Your task to perform on an android device: Open the calendar and show me this week's events? Image 0: 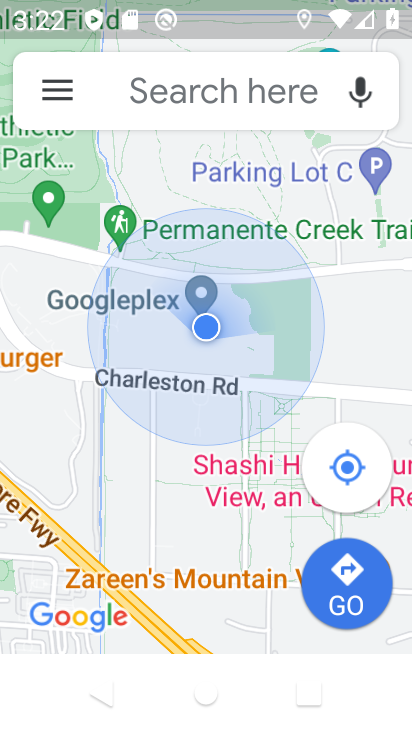
Step 0: press home button
Your task to perform on an android device: Open the calendar and show me this week's events? Image 1: 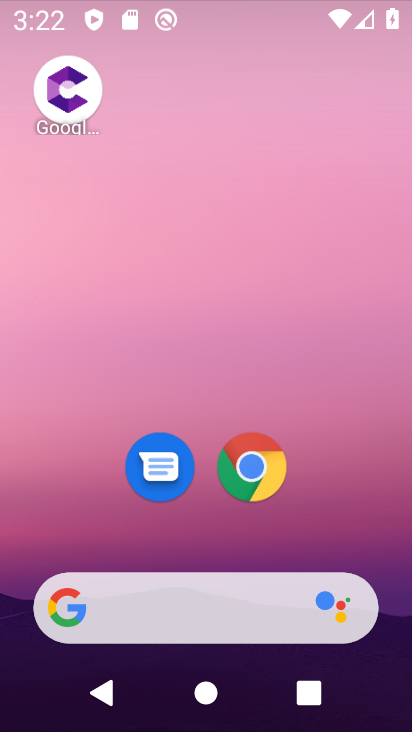
Step 1: drag from (212, 535) to (216, 86)
Your task to perform on an android device: Open the calendar and show me this week's events? Image 2: 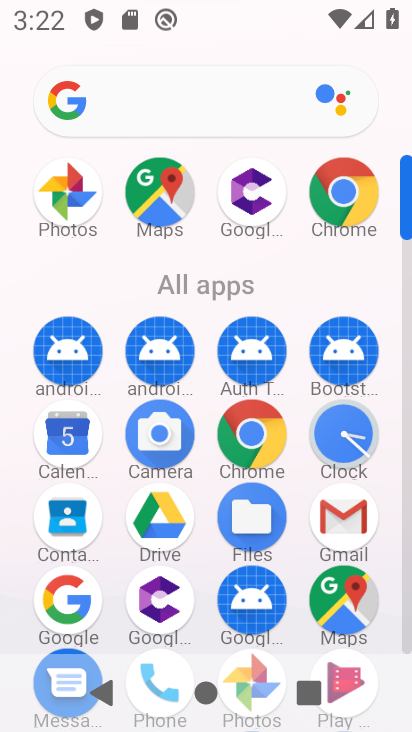
Step 2: click (59, 430)
Your task to perform on an android device: Open the calendar and show me this week's events? Image 3: 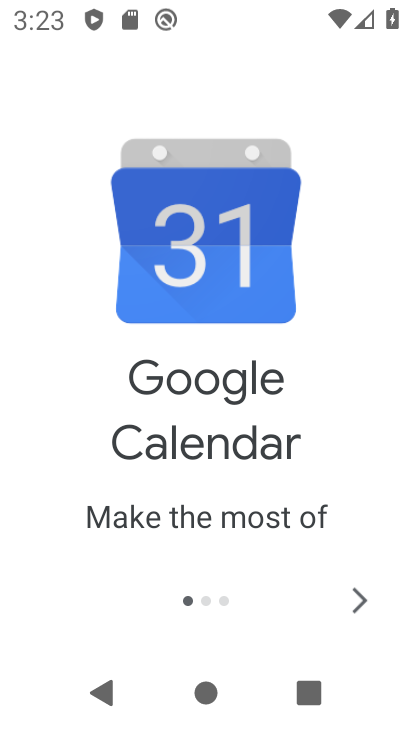
Step 3: click (363, 603)
Your task to perform on an android device: Open the calendar and show me this week's events? Image 4: 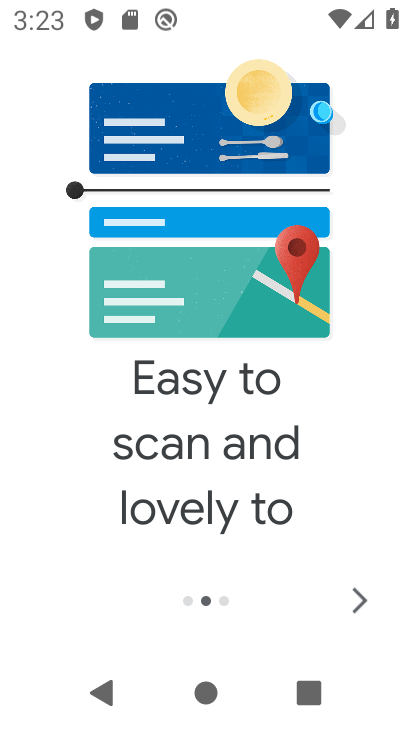
Step 4: click (361, 602)
Your task to perform on an android device: Open the calendar and show me this week's events? Image 5: 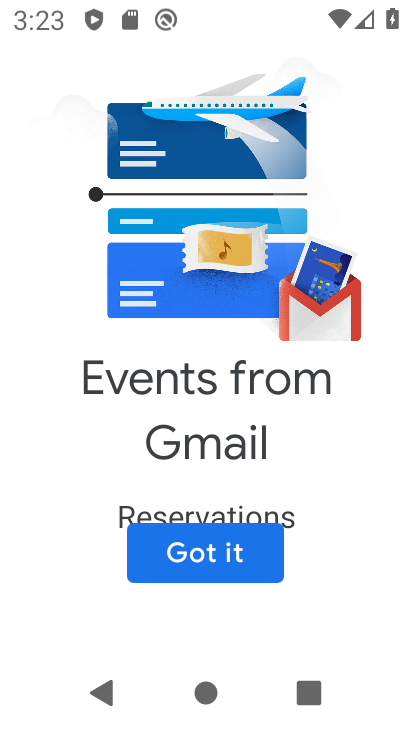
Step 5: click (361, 602)
Your task to perform on an android device: Open the calendar and show me this week's events? Image 6: 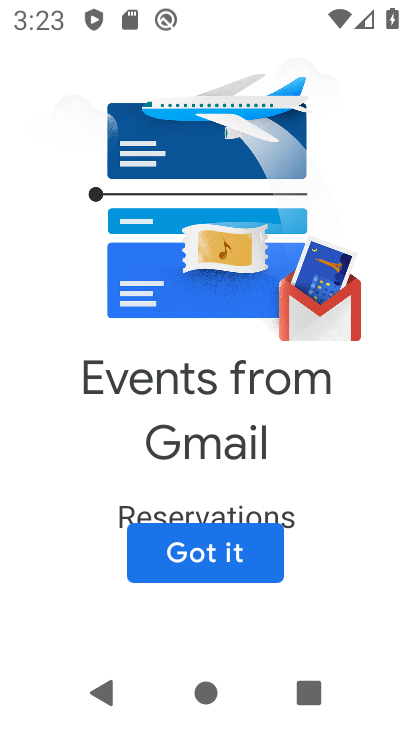
Step 6: click (361, 602)
Your task to perform on an android device: Open the calendar and show me this week's events? Image 7: 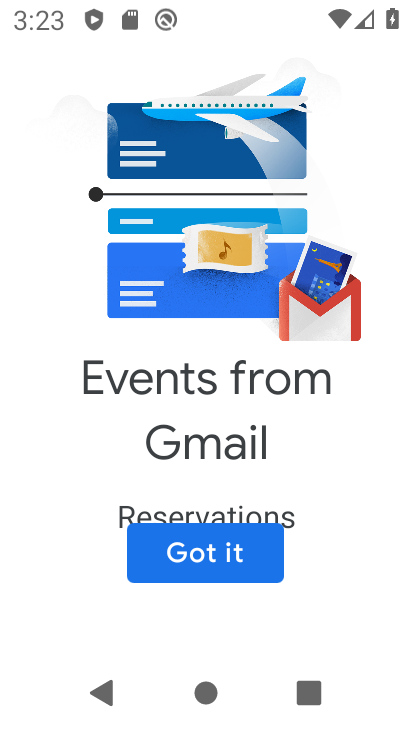
Step 7: click (191, 541)
Your task to perform on an android device: Open the calendar and show me this week's events? Image 8: 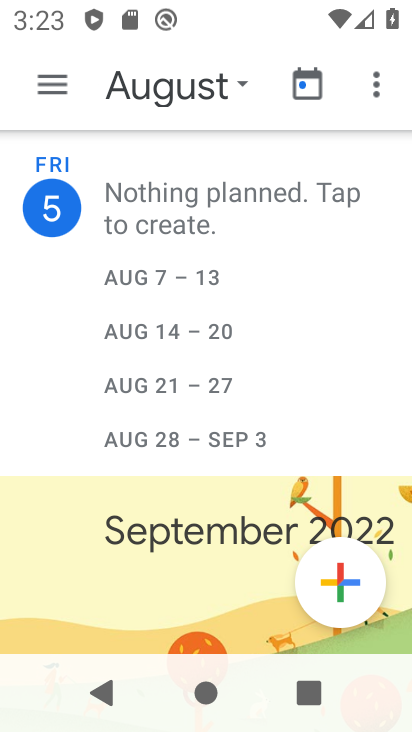
Step 8: click (206, 96)
Your task to perform on an android device: Open the calendar and show me this week's events? Image 9: 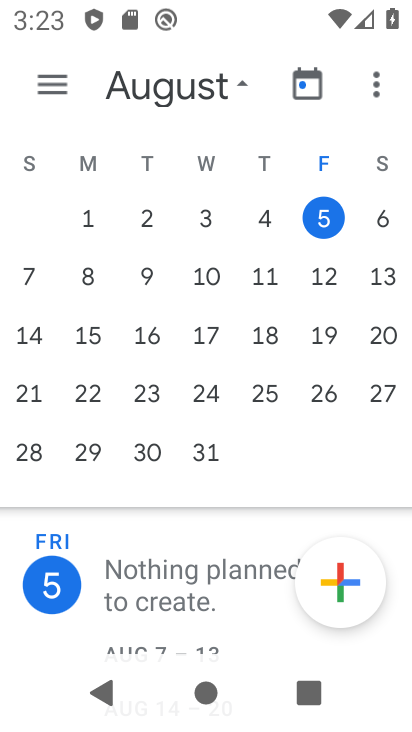
Step 9: click (20, 272)
Your task to perform on an android device: Open the calendar and show me this week's events? Image 10: 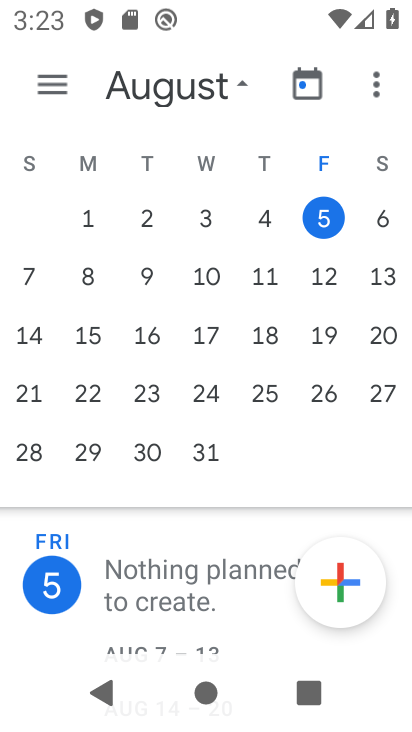
Step 10: click (36, 272)
Your task to perform on an android device: Open the calendar and show me this week's events? Image 11: 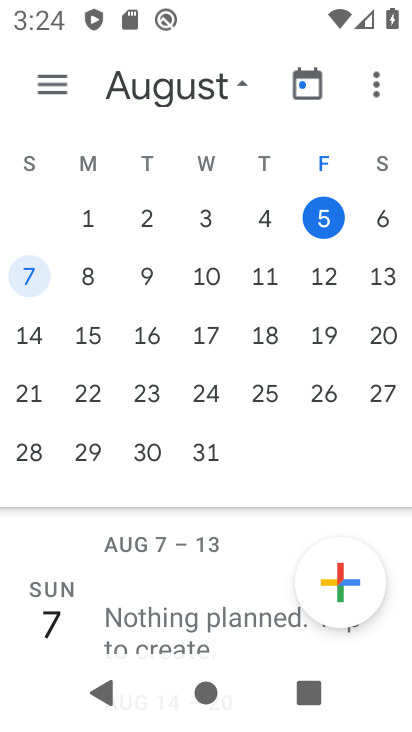
Step 11: click (261, 214)
Your task to perform on an android device: Open the calendar and show me this week's events? Image 12: 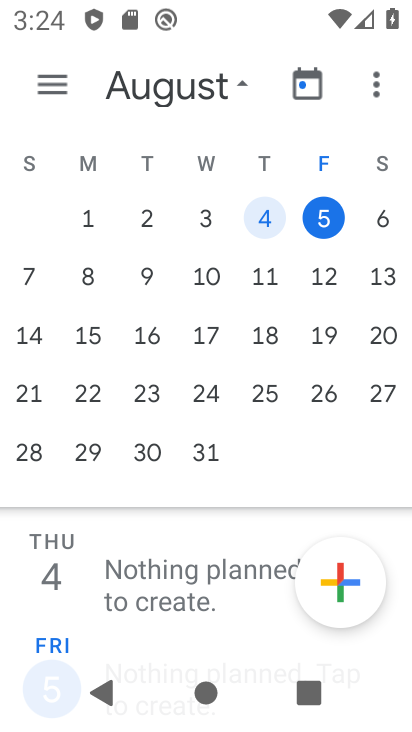
Step 12: click (317, 217)
Your task to perform on an android device: Open the calendar and show me this week's events? Image 13: 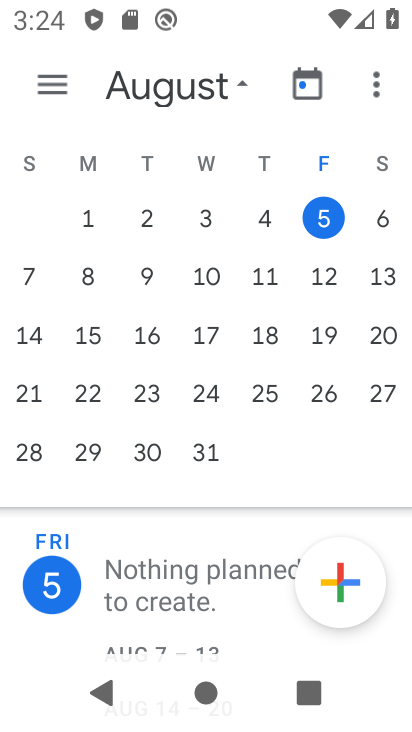
Step 13: task complete